Your task to perform on an android device: What is the recent news? Image 0: 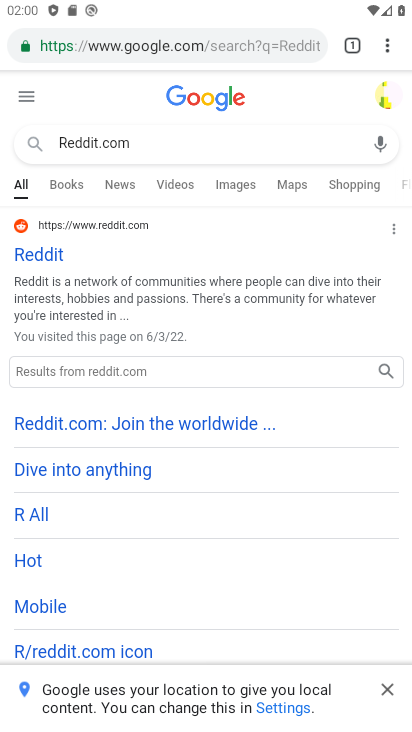
Step 0: press home button
Your task to perform on an android device: What is the recent news? Image 1: 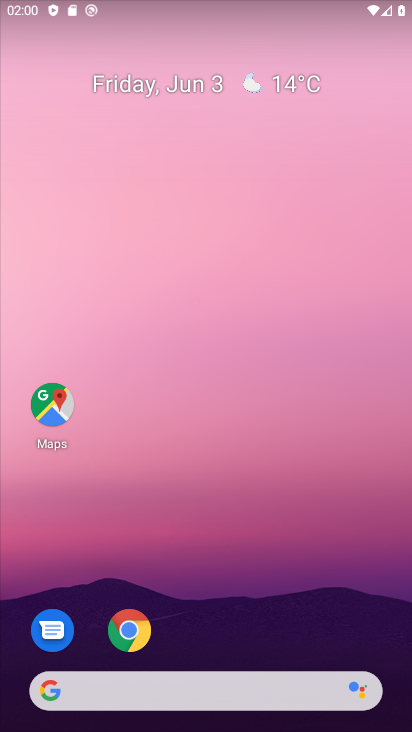
Step 1: task complete